Your task to perform on an android device: Open notification settings Image 0: 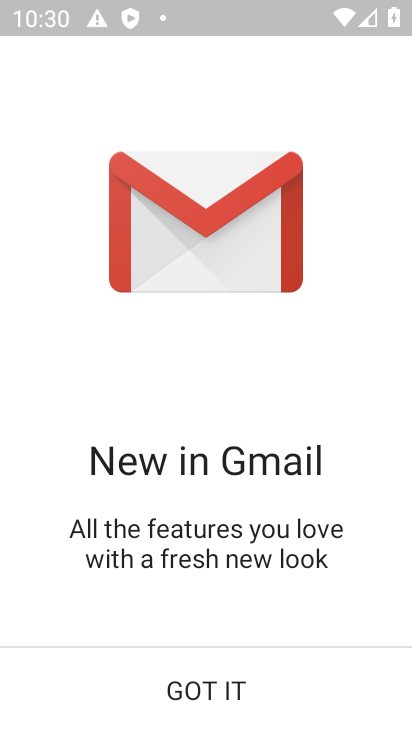
Step 0: press home button
Your task to perform on an android device: Open notification settings Image 1: 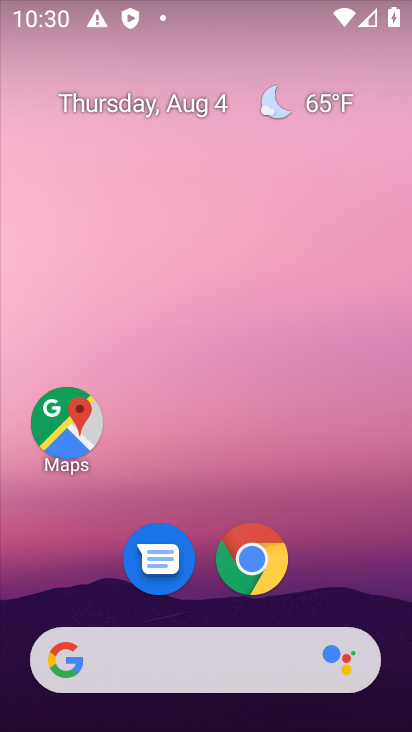
Step 1: drag from (193, 513) to (119, 7)
Your task to perform on an android device: Open notification settings Image 2: 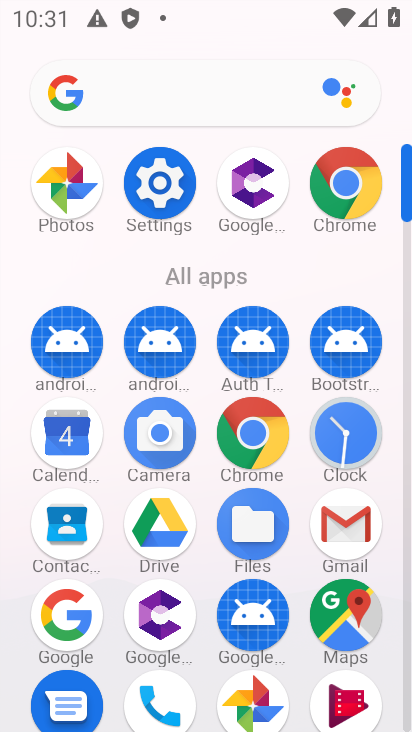
Step 2: click (147, 276)
Your task to perform on an android device: Open notification settings Image 3: 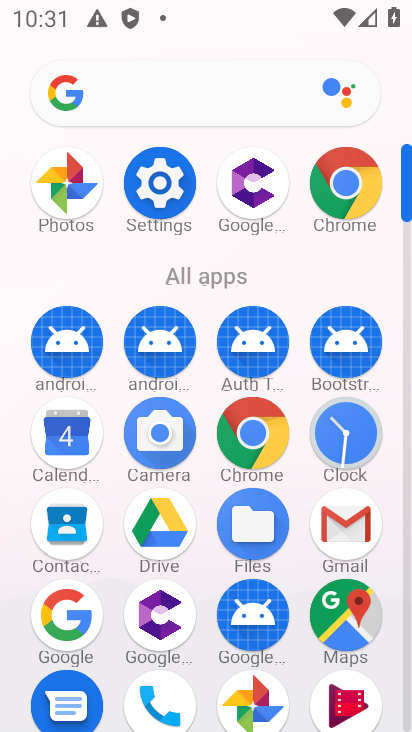
Step 3: click (147, 215)
Your task to perform on an android device: Open notification settings Image 4: 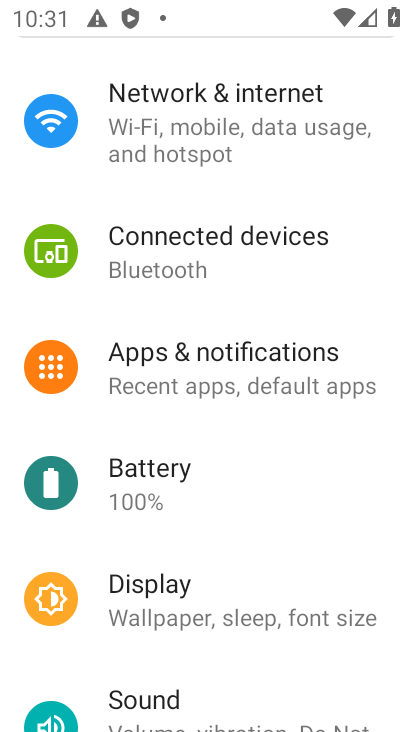
Step 4: task complete